Your task to perform on an android device: Open battery settings Image 0: 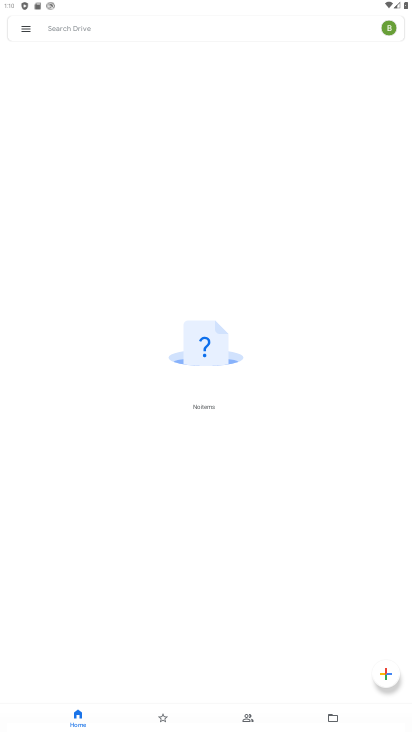
Step 0: press home button
Your task to perform on an android device: Open battery settings Image 1: 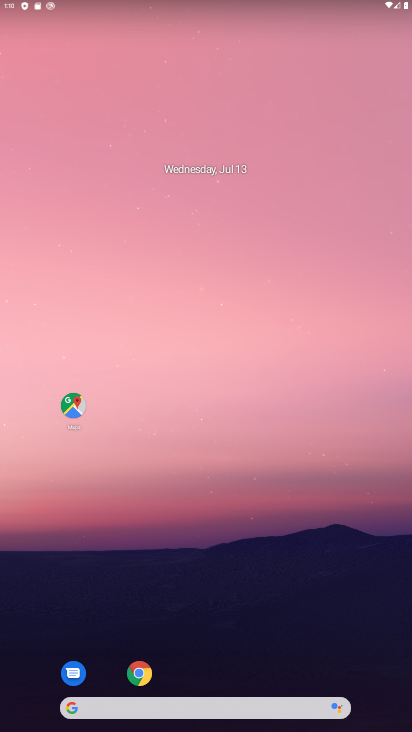
Step 1: drag from (197, 308) to (184, 75)
Your task to perform on an android device: Open battery settings Image 2: 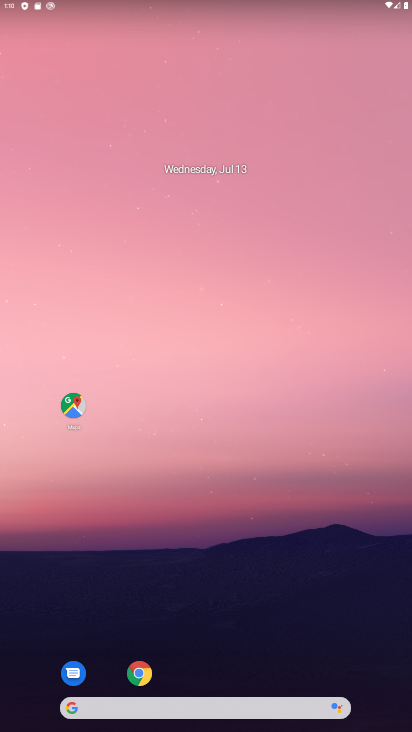
Step 2: drag from (206, 692) to (160, 79)
Your task to perform on an android device: Open battery settings Image 3: 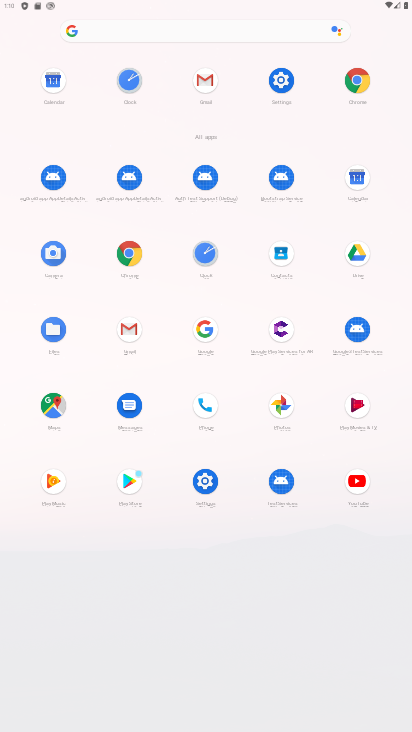
Step 3: click (275, 83)
Your task to perform on an android device: Open battery settings Image 4: 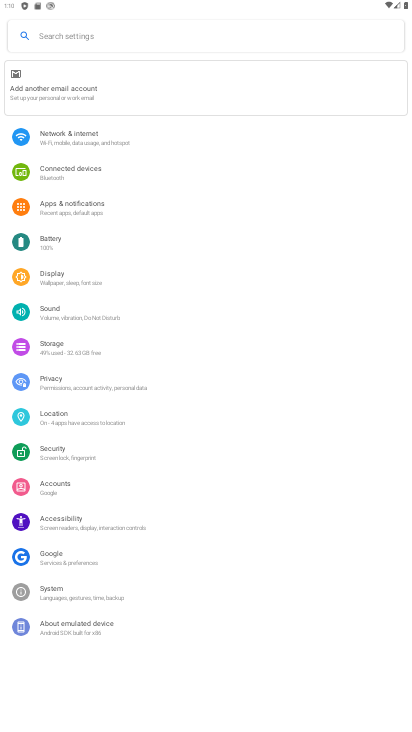
Step 4: click (37, 232)
Your task to perform on an android device: Open battery settings Image 5: 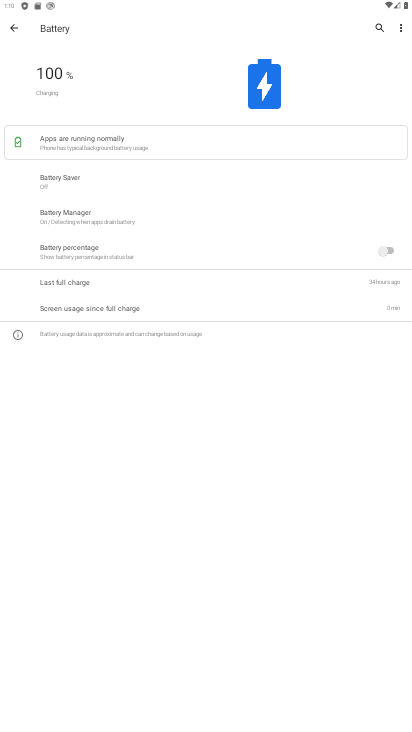
Step 5: task complete